Your task to perform on an android device: Search for Italian restaurants on Maps Image 0: 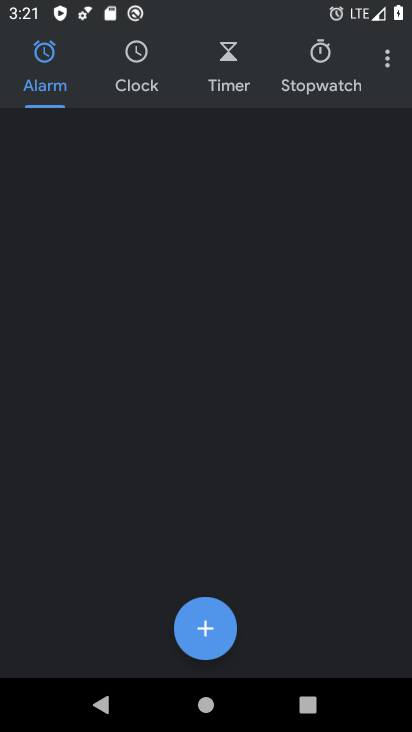
Step 0: press home button
Your task to perform on an android device: Search for Italian restaurants on Maps Image 1: 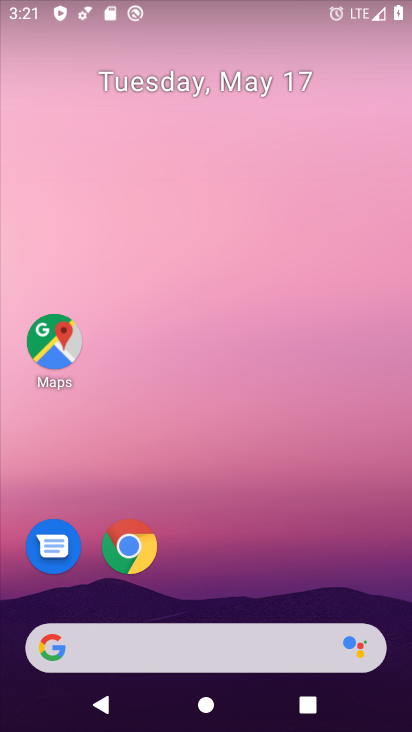
Step 1: click (41, 348)
Your task to perform on an android device: Search for Italian restaurants on Maps Image 2: 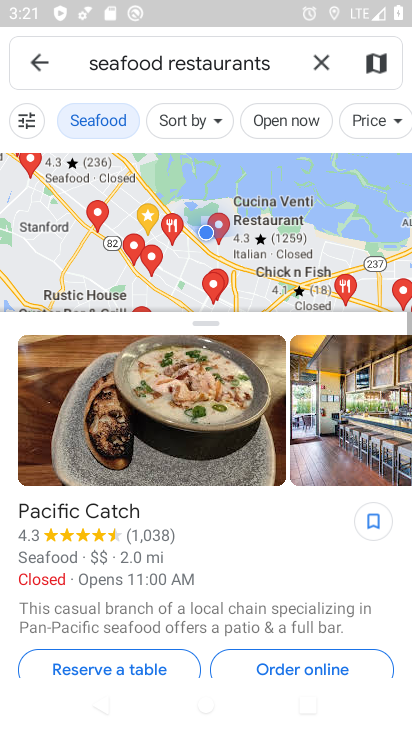
Step 2: click (323, 62)
Your task to perform on an android device: Search for Italian restaurants on Maps Image 3: 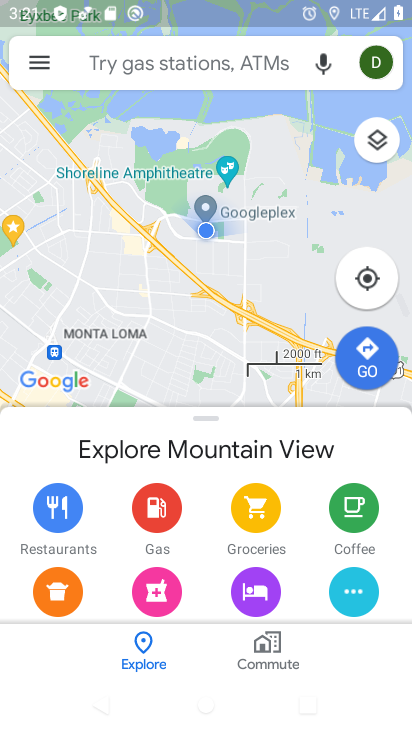
Step 3: click (179, 55)
Your task to perform on an android device: Search for Italian restaurants on Maps Image 4: 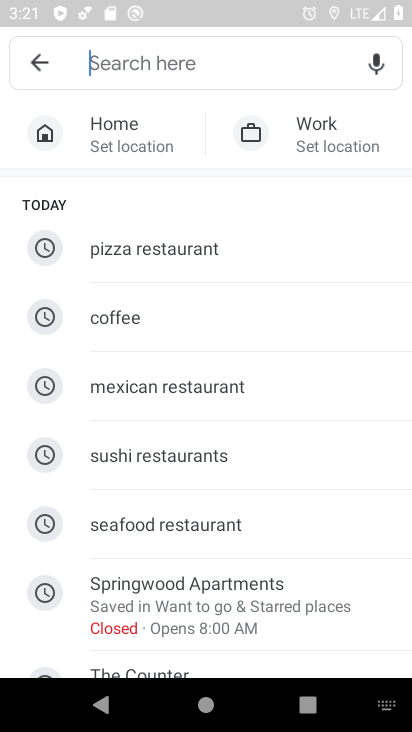
Step 4: type " Italian restaurants"
Your task to perform on an android device: Search for Italian restaurants on Maps Image 5: 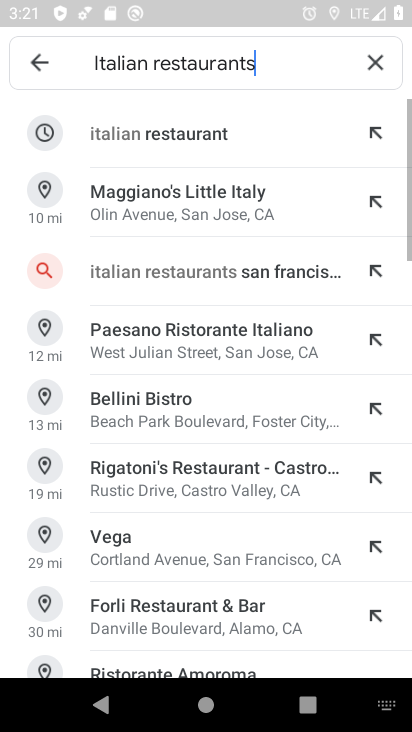
Step 5: click (164, 124)
Your task to perform on an android device: Search for Italian restaurants on Maps Image 6: 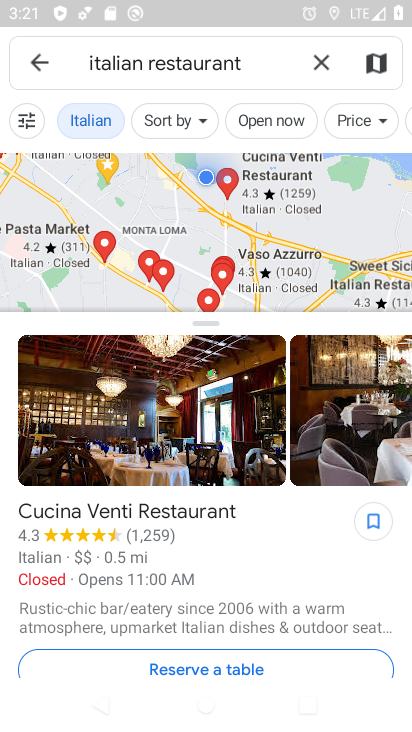
Step 6: task complete